Your task to perform on an android device: open a new tab in the chrome app Image 0: 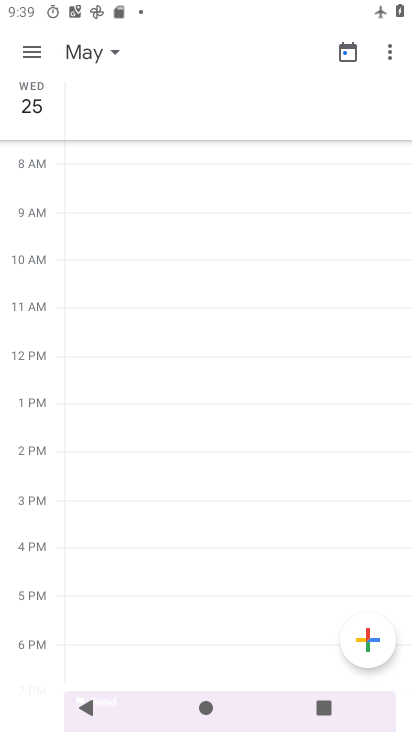
Step 0: press home button
Your task to perform on an android device: open a new tab in the chrome app Image 1: 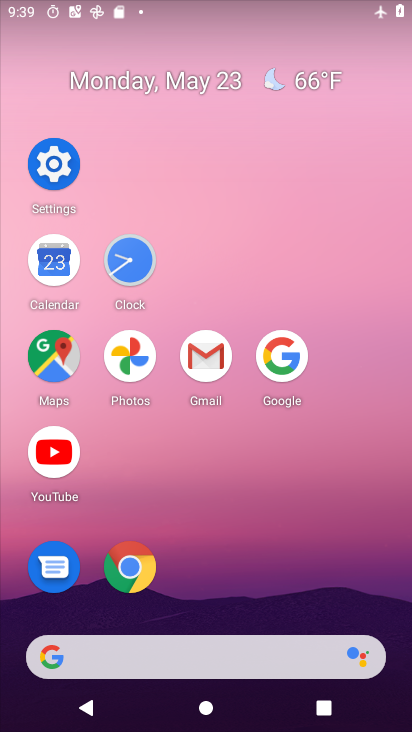
Step 1: click (121, 584)
Your task to perform on an android device: open a new tab in the chrome app Image 2: 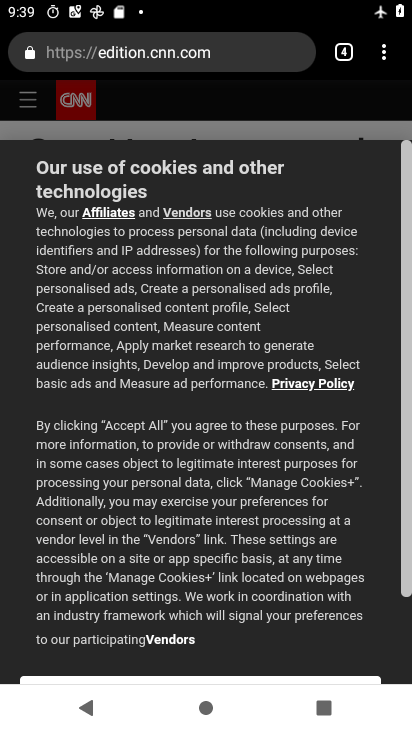
Step 2: click (332, 50)
Your task to perform on an android device: open a new tab in the chrome app Image 3: 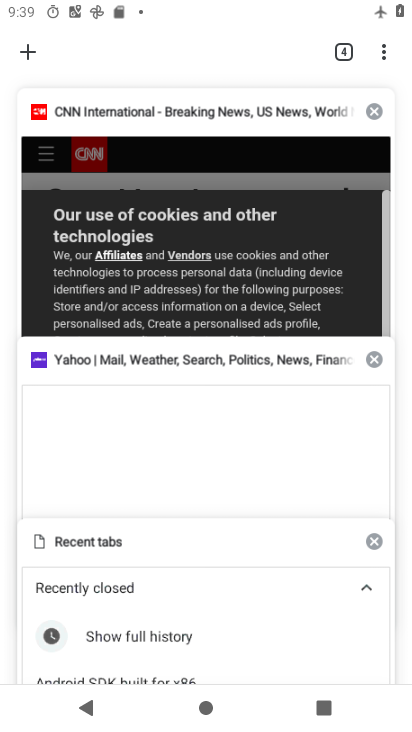
Step 3: click (31, 47)
Your task to perform on an android device: open a new tab in the chrome app Image 4: 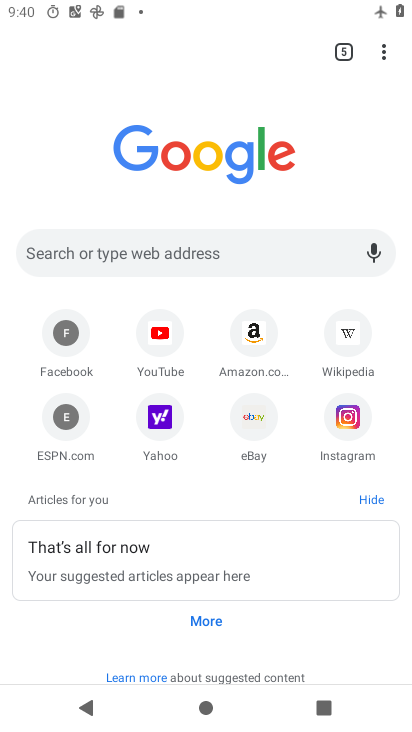
Step 4: task complete